Your task to perform on an android device: Set the phone to "Do not disturb". Image 0: 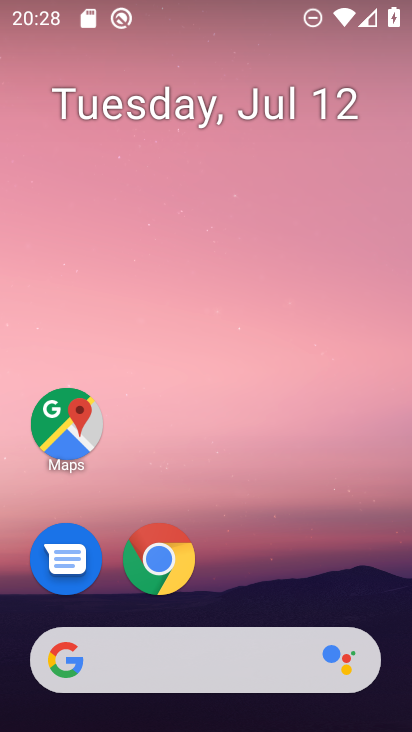
Step 0: drag from (339, 569) to (349, 109)
Your task to perform on an android device: Set the phone to "Do not disturb". Image 1: 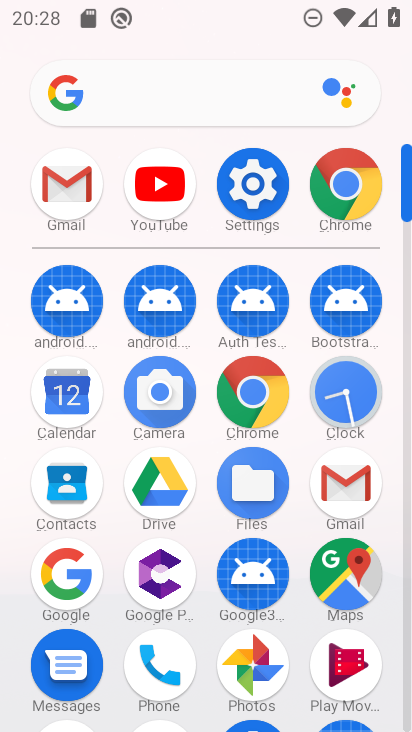
Step 1: click (268, 185)
Your task to perform on an android device: Set the phone to "Do not disturb". Image 2: 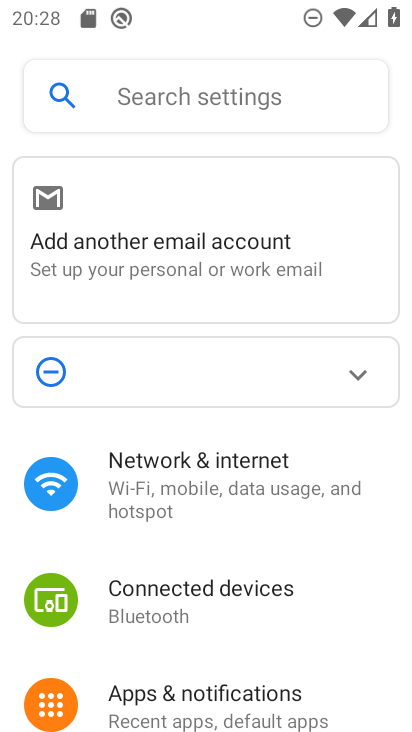
Step 2: drag from (352, 599) to (357, 504)
Your task to perform on an android device: Set the phone to "Do not disturb". Image 3: 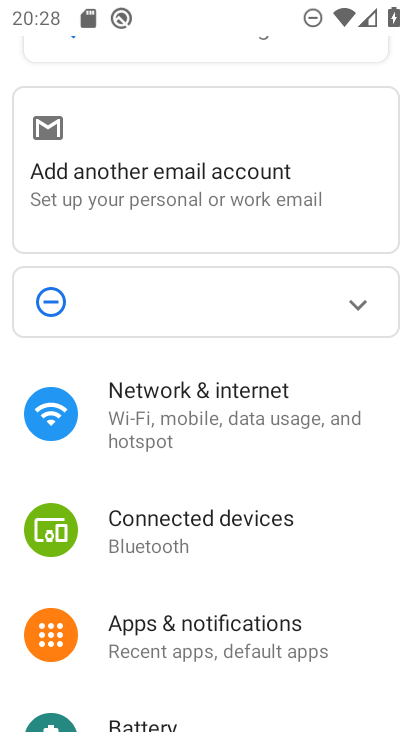
Step 3: drag from (366, 639) to (366, 505)
Your task to perform on an android device: Set the phone to "Do not disturb". Image 4: 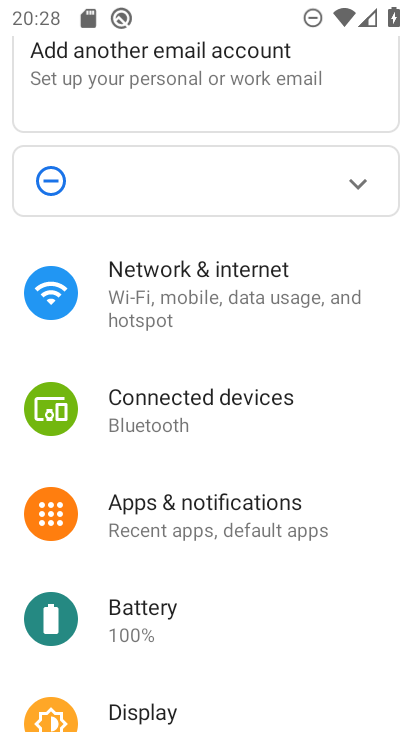
Step 4: drag from (361, 615) to (361, 530)
Your task to perform on an android device: Set the phone to "Do not disturb". Image 5: 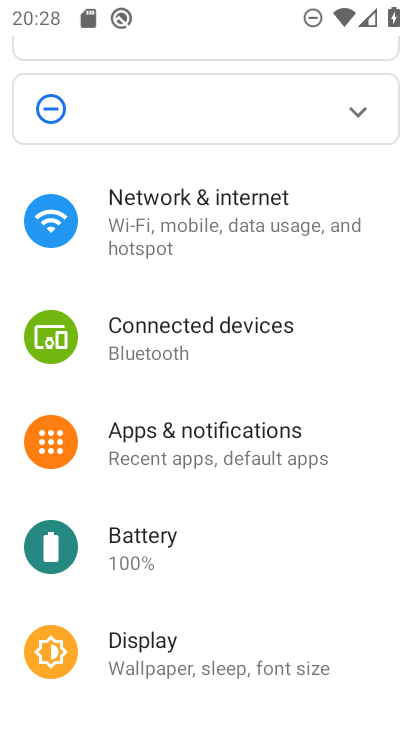
Step 5: drag from (371, 620) to (374, 523)
Your task to perform on an android device: Set the phone to "Do not disturb". Image 6: 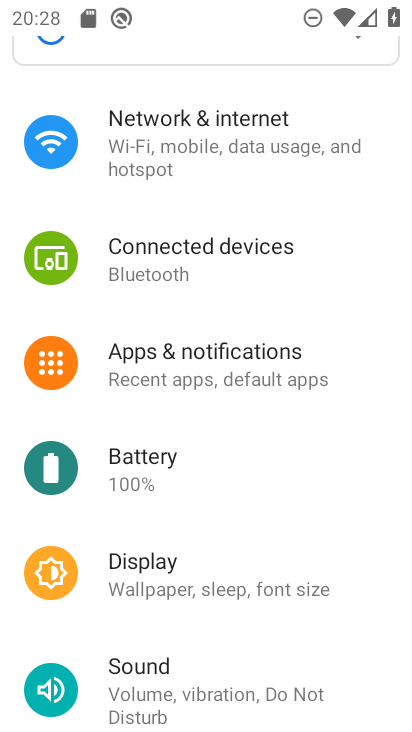
Step 6: drag from (358, 486) to (357, 398)
Your task to perform on an android device: Set the phone to "Do not disturb". Image 7: 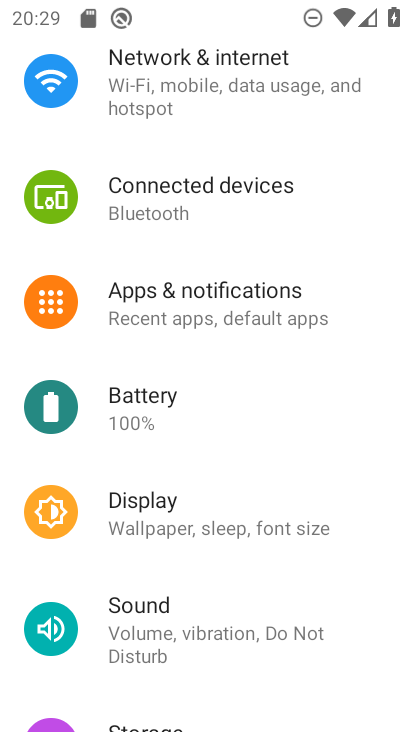
Step 7: drag from (358, 487) to (359, 359)
Your task to perform on an android device: Set the phone to "Do not disturb". Image 8: 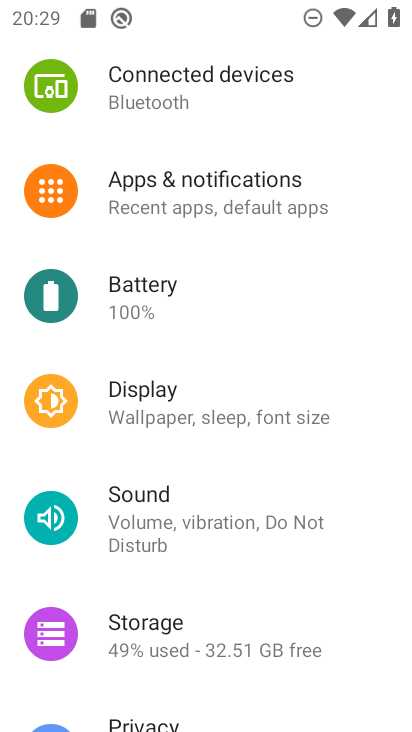
Step 8: drag from (366, 478) to (371, 320)
Your task to perform on an android device: Set the phone to "Do not disturb". Image 9: 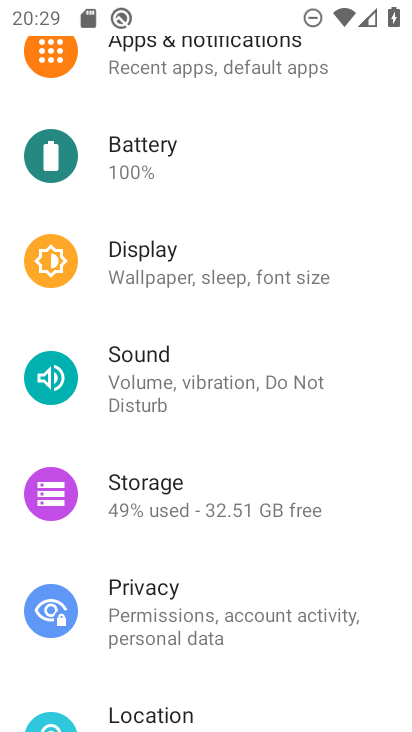
Step 9: click (325, 399)
Your task to perform on an android device: Set the phone to "Do not disturb". Image 10: 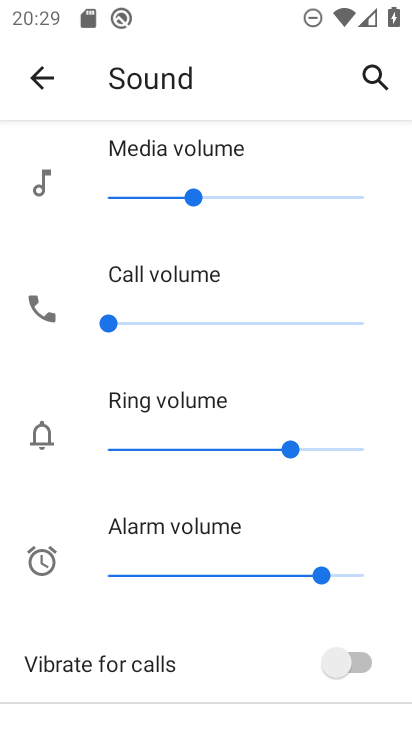
Step 10: task complete